Your task to perform on an android device: Is it going to rain today? Image 0: 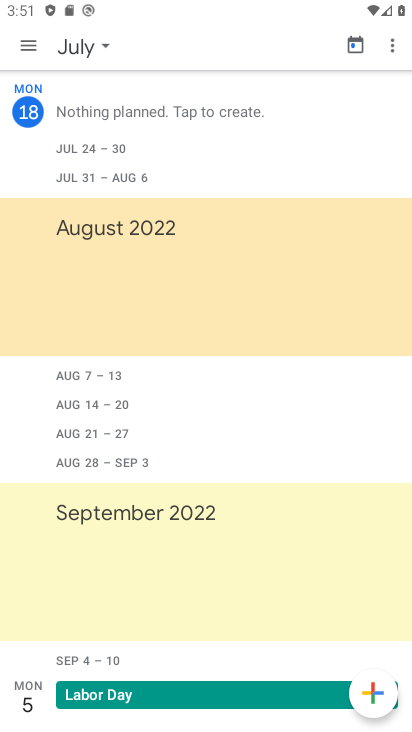
Step 0: press home button
Your task to perform on an android device: Is it going to rain today? Image 1: 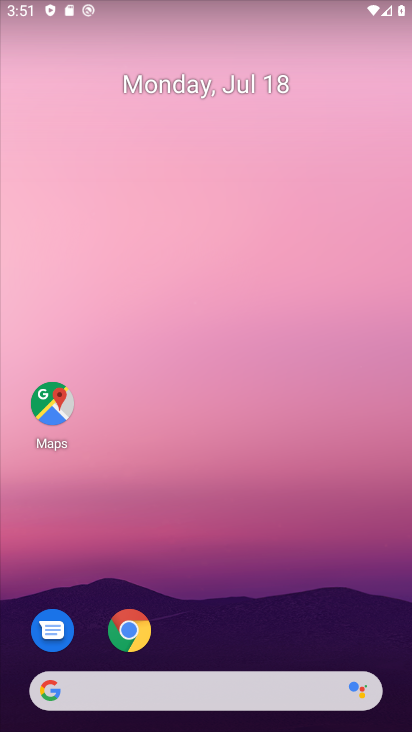
Step 1: drag from (232, 580) to (242, 51)
Your task to perform on an android device: Is it going to rain today? Image 2: 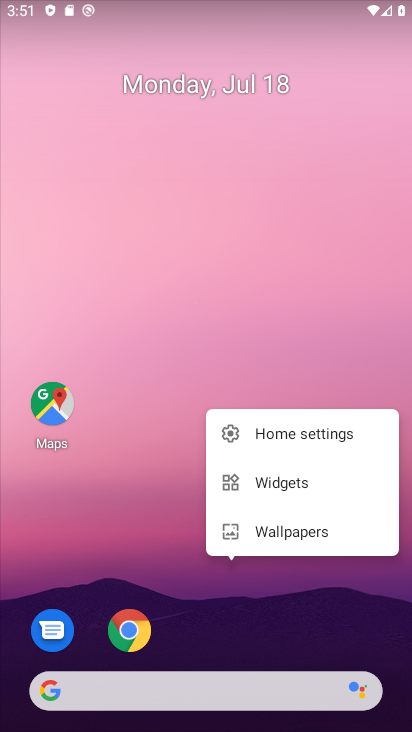
Step 2: click (237, 312)
Your task to perform on an android device: Is it going to rain today? Image 3: 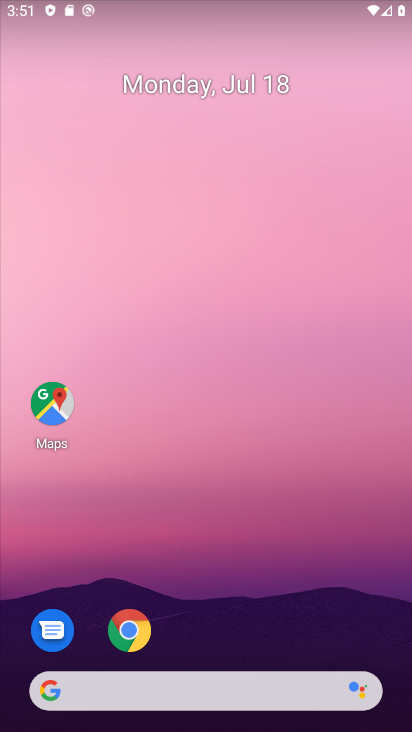
Step 3: drag from (225, 493) to (223, 132)
Your task to perform on an android device: Is it going to rain today? Image 4: 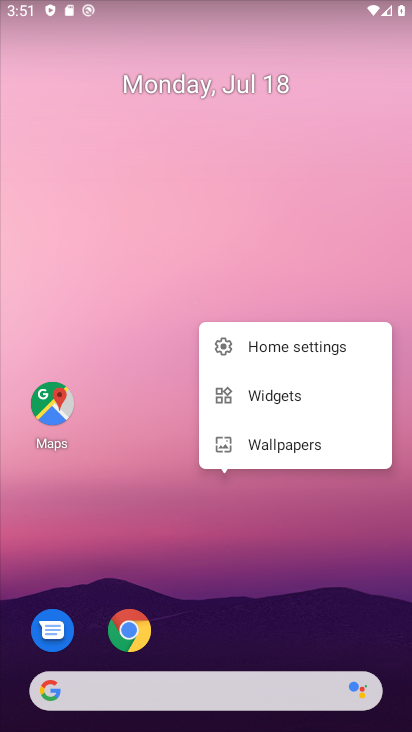
Step 4: click (281, 636)
Your task to perform on an android device: Is it going to rain today? Image 5: 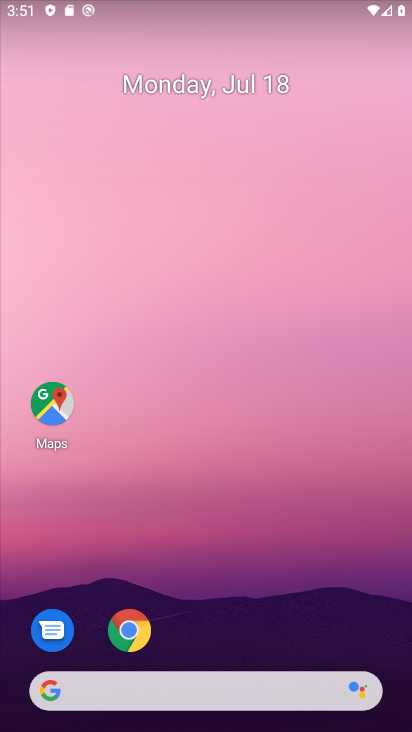
Step 5: drag from (256, 203) to (250, 4)
Your task to perform on an android device: Is it going to rain today? Image 6: 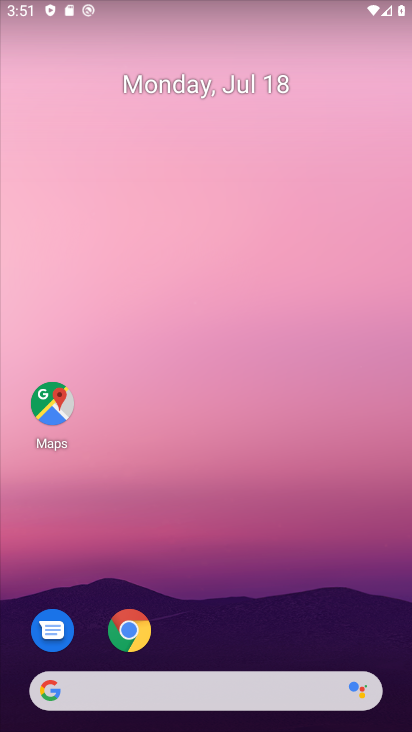
Step 6: drag from (287, 617) to (244, 63)
Your task to perform on an android device: Is it going to rain today? Image 7: 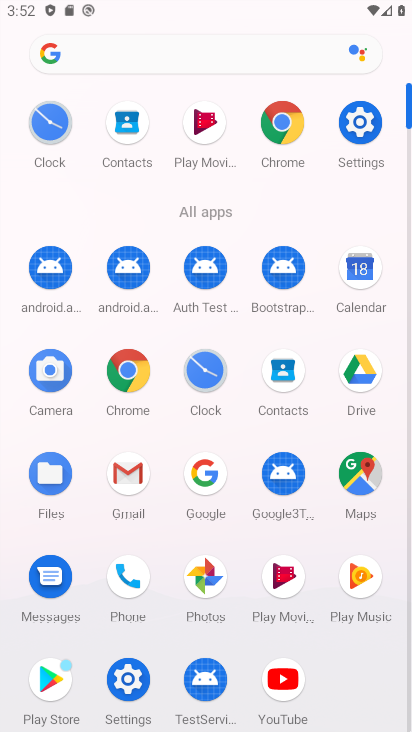
Step 7: click (284, 121)
Your task to perform on an android device: Is it going to rain today? Image 8: 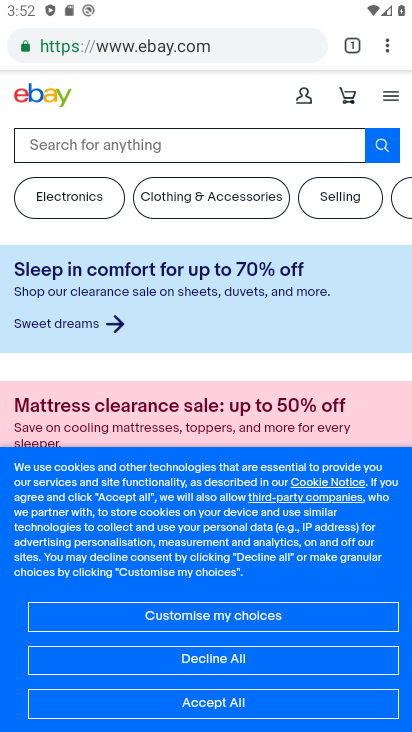
Step 8: click (137, 50)
Your task to perform on an android device: Is it going to rain today? Image 9: 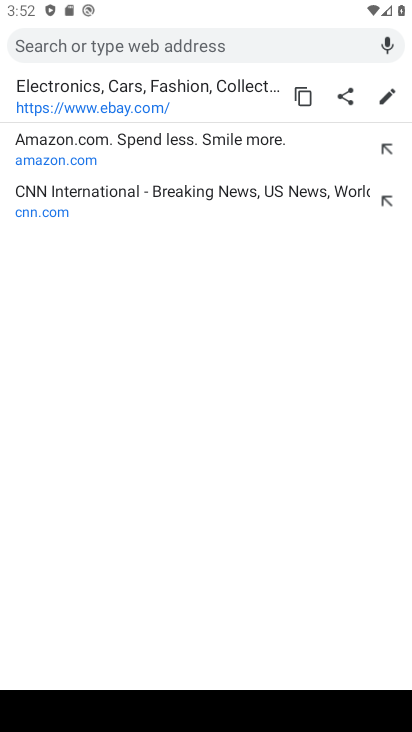
Step 9: type "weather"
Your task to perform on an android device: Is it going to rain today? Image 10: 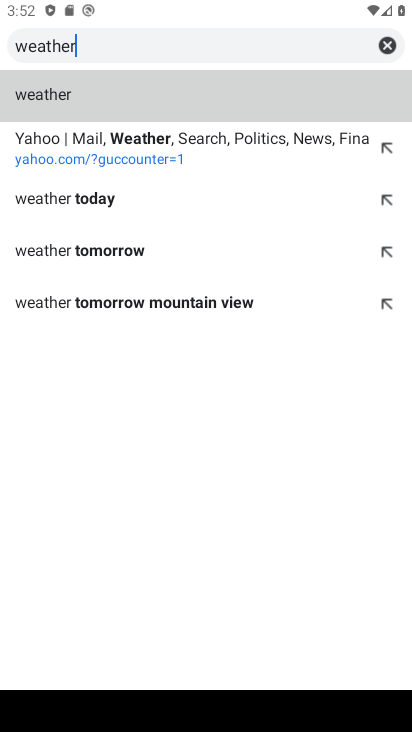
Step 10: click (48, 95)
Your task to perform on an android device: Is it going to rain today? Image 11: 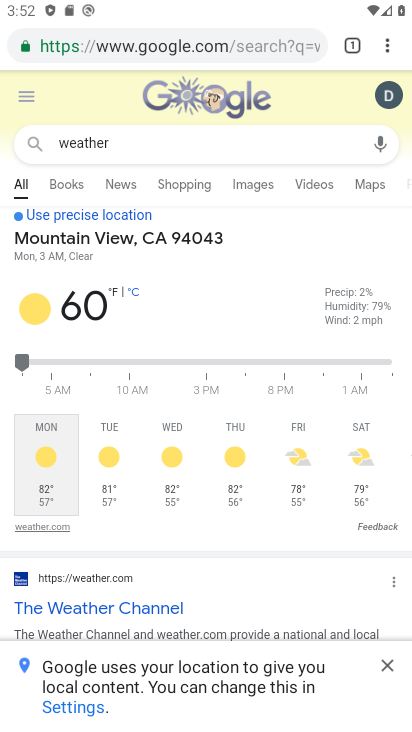
Step 11: task complete